Your task to perform on an android device: allow notifications from all sites in the chrome app Image 0: 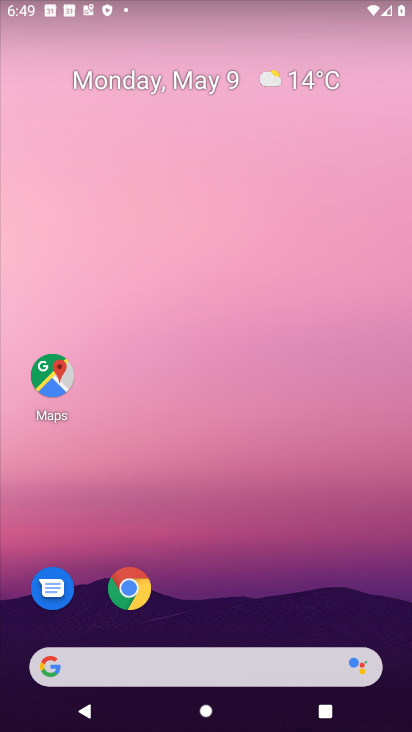
Step 0: drag from (355, 601) to (292, 89)
Your task to perform on an android device: allow notifications from all sites in the chrome app Image 1: 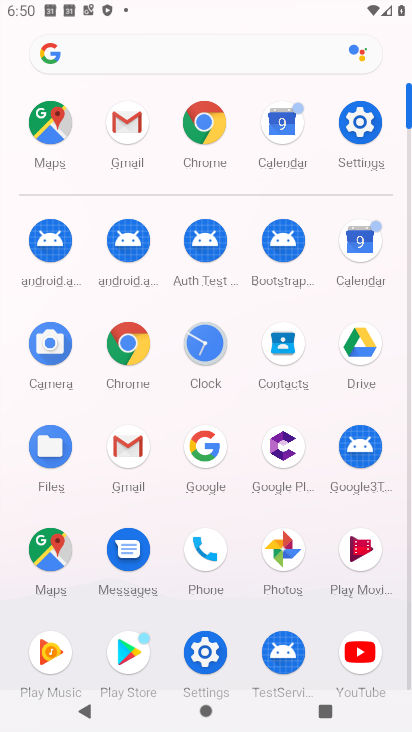
Step 1: click (206, 121)
Your task to perform on an android device: allow notifications from all sites in the chrome app Image 2: 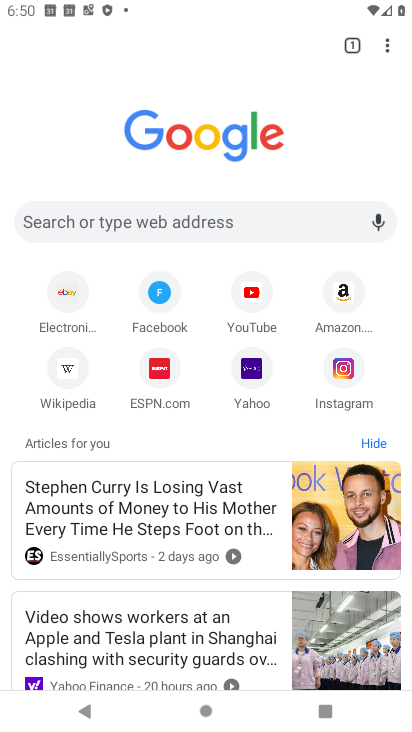
Step 2: click (382, 43)
Your task to perform on an android device: allow notifications from all sites in the chrome app Image 3: 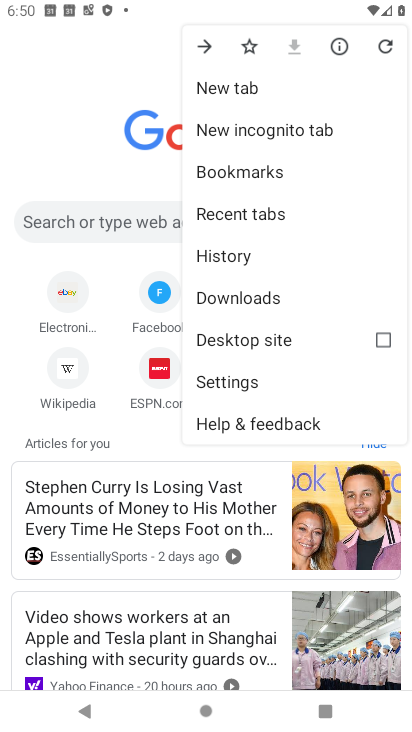
Step 3: click (261, 381)
Your task to perform on an android device: allow notifications from all sites in the chrome app Image 4: 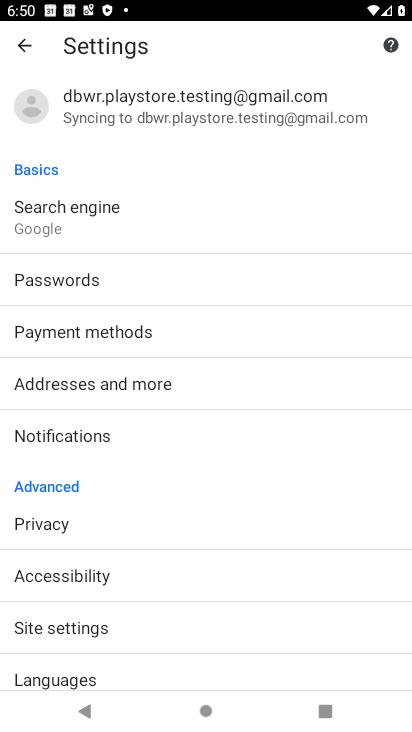
Step 4: click (124, 441)
Your task to perform on an android device: allow notifications from all sites in the chrome app Image 5: 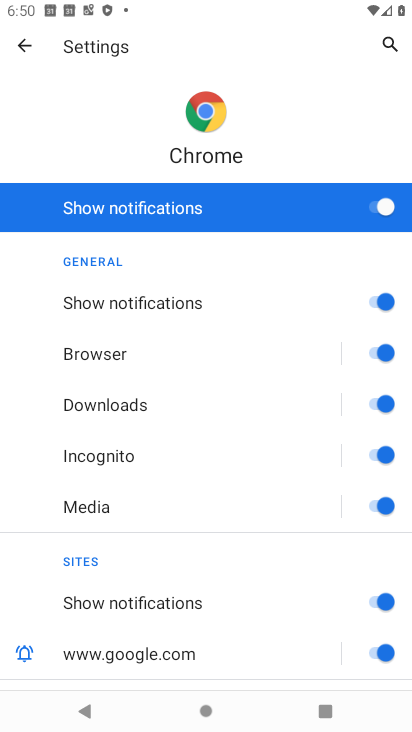
Step 5: task complete